Your task to perform on an android device: Go to Reddit.com Image 0: 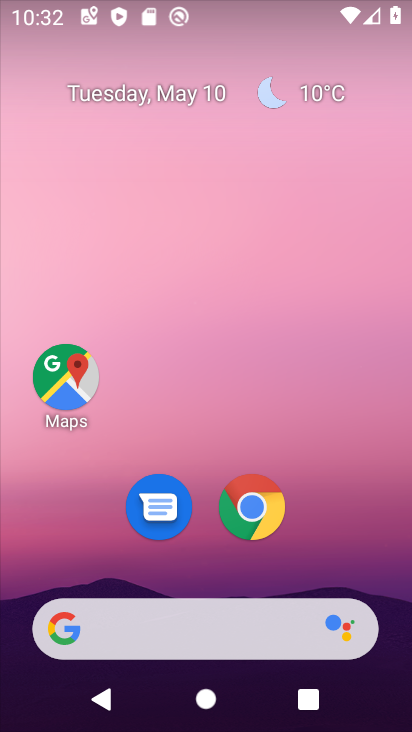
Step 0: click (268, 515)
Your task to perform on an android device: Go to Reddit.com Image 1: 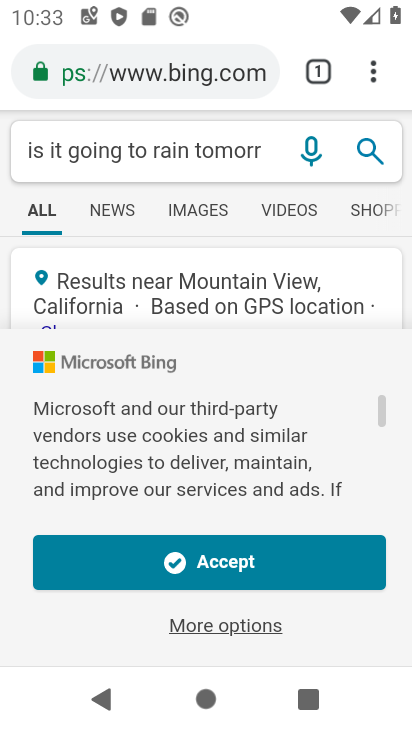
Step 1: click (161, 63)
Your task to perform on an android device: Go to Reddit.com Image 2: 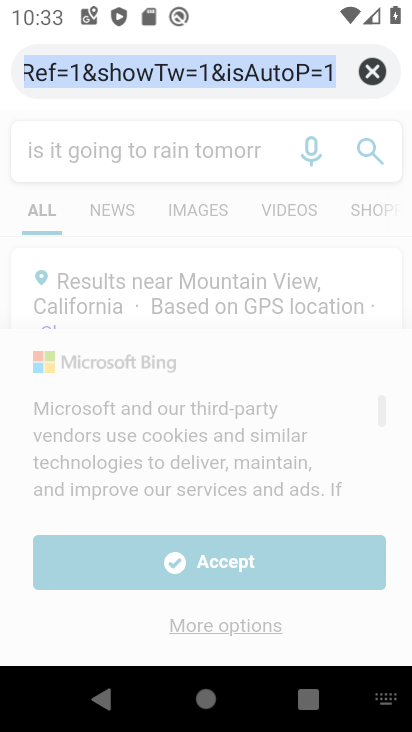
Step 2: type "reddit.com"
Your task to perform on an android device: Go to Reddit.com Image 3: 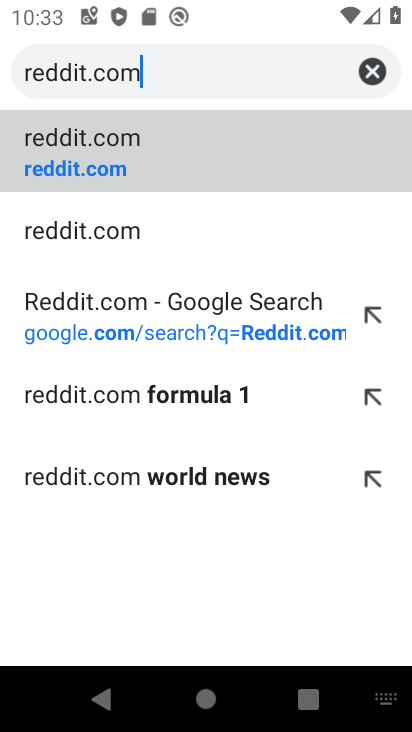
Step 3: click (196, 152)
Your task to perform on an android device: Go to Reddit.com Image 4: 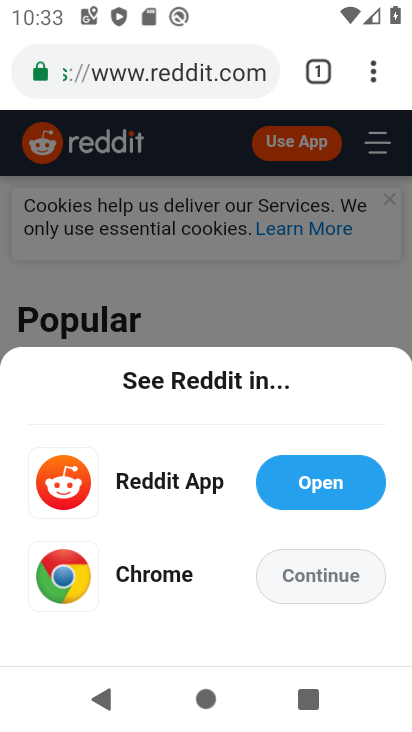
Step 4: task complete